Your task to perform on an android device: Open ESPN.com Image 0: 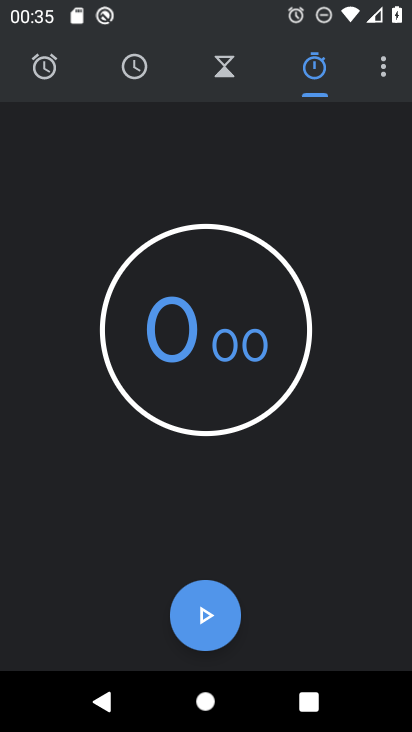
Step 0: press home button
Your task to perform on an android device: Open ESPN.com Image 1: 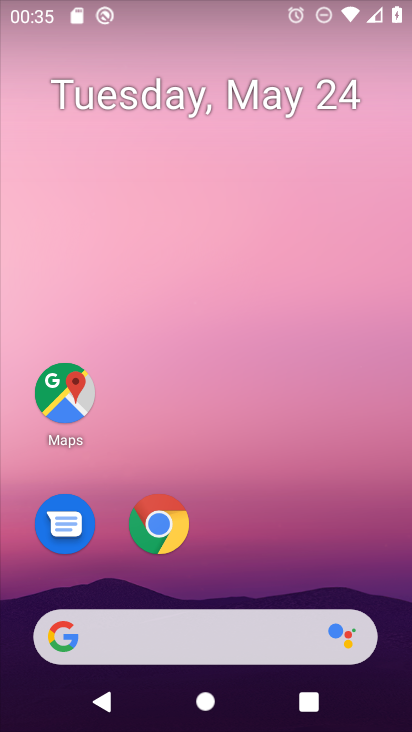
Step 1: click (175, 525)
Your task to perform on an android device: Open ESPN.com Image 2: 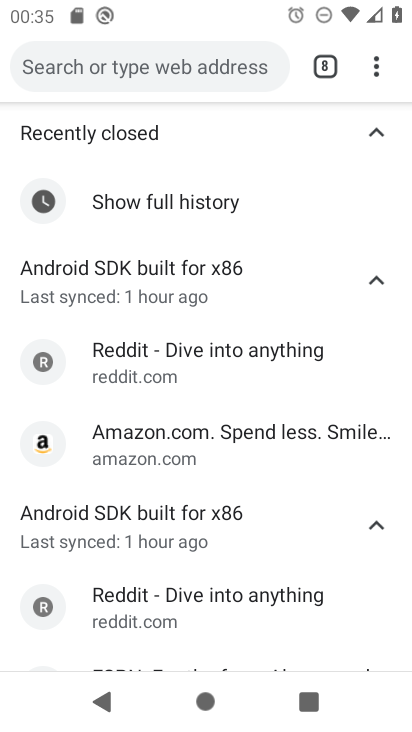
Step 2: click (315, 66)
Your task to perform on an android device: Open ESPN.com Image 3: 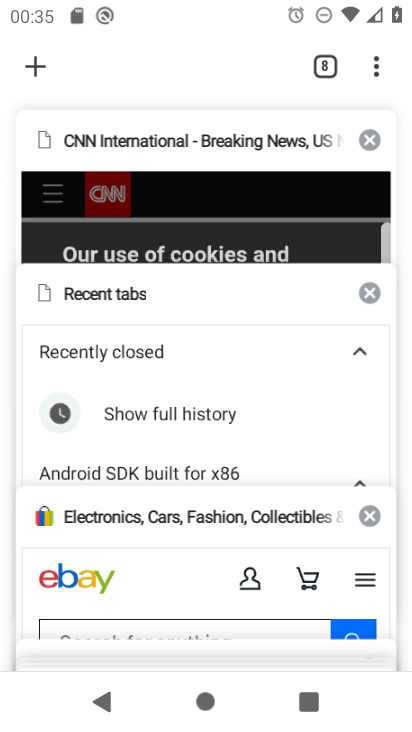
Step 3: drag from (209, 535) to (194, 187)
Your task to perform on an android device: Open ESPN.com Image 4: 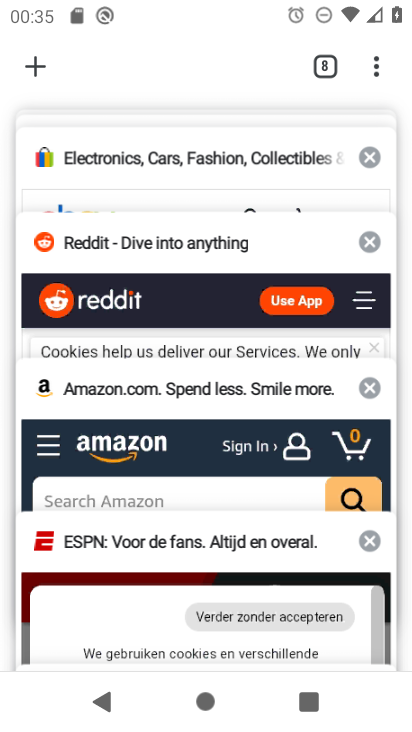
Step 4: drag from (196, 526) to (201, 240)
Your task to perform on an android device: Open ESPN.com Image 5: 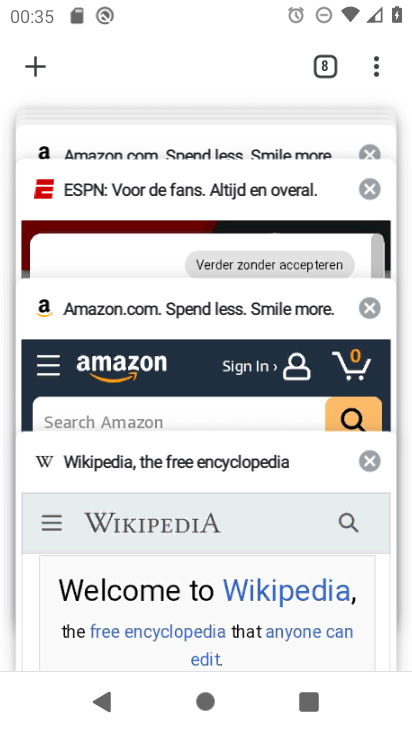
Step 5: click (168, 236)
Your task to perform on an android device: Open ESPN.com Image 6: 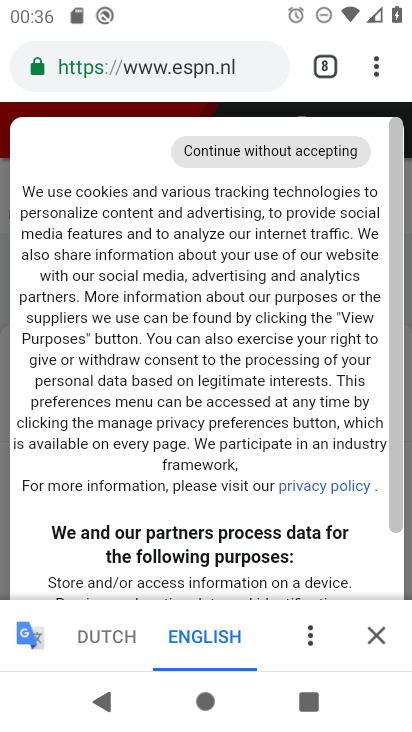
Step 6: task complete